Your task to perform on an android device: clear history in the chrome app Image 0: 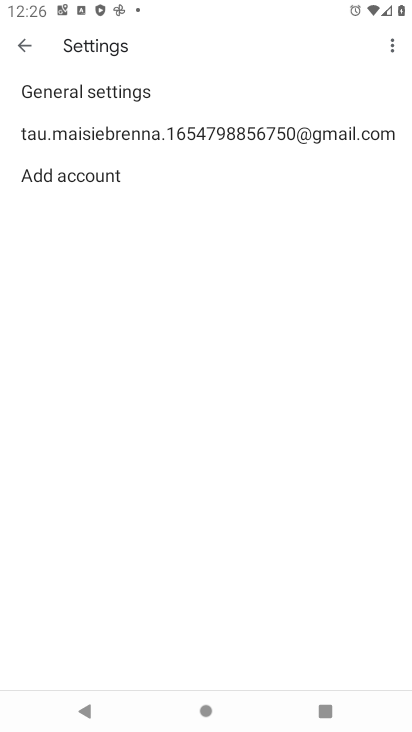
Step 0: click (31, 52)
Your task to perform on an android device: clear history in the chrome app Image 1: 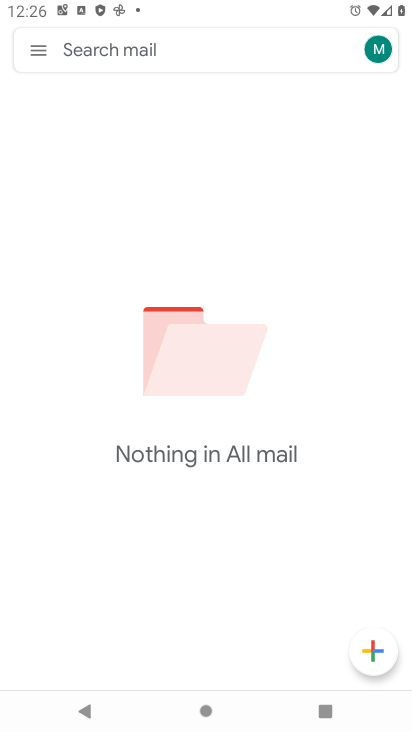
Step 1: press home button
Your task to perform on an android device: clear history in the chrome app Image 2: 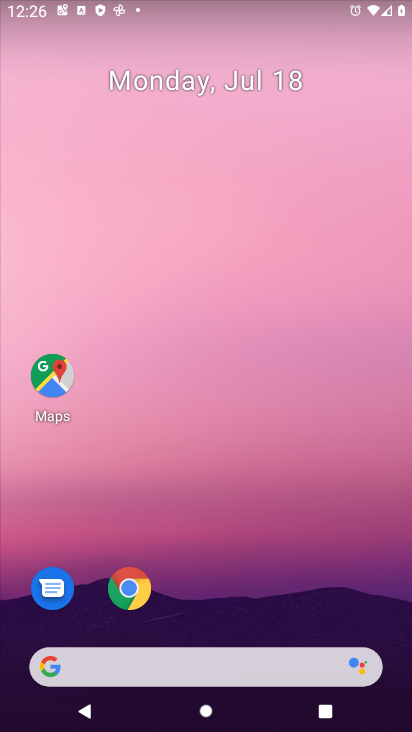
Step 2: click (130, 593)
Your task to perform on an android device: clear history in the chrome app Image 3: 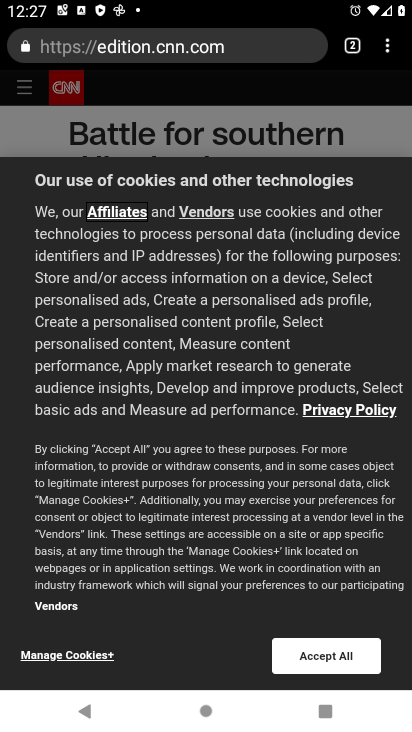
Step 3: click (386, 49)
Your task to perform on an android device: clear history in the chrome app Image 4: 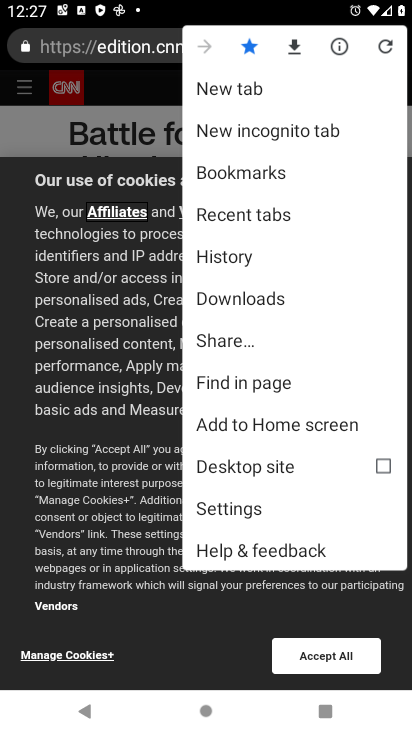
Step 4: click (226, 267)
Your task to perform on an android device: clear history in the chrome app Image 5: 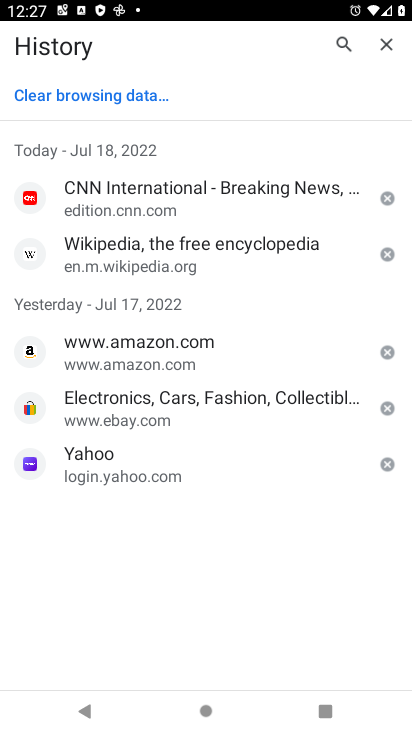
Step 5: click (114, 102)
Your task to perform on an android device: clear history in the chrome app Image 6: 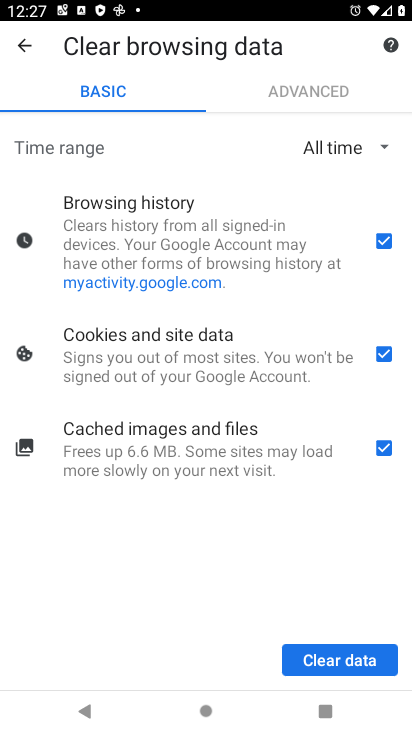
Step 6: click (385, 340)
Your task to perform on an android device: clear history in the chrome app Image 7: 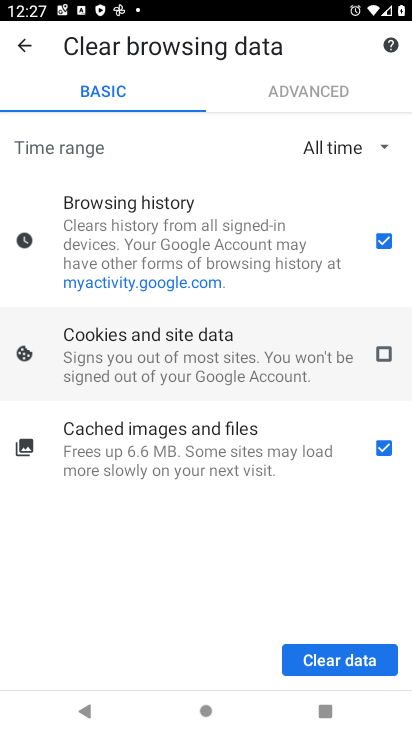
Step 7: click (380, 449)
Your task to perform on an android device: clear history in the chrome app Image 8: 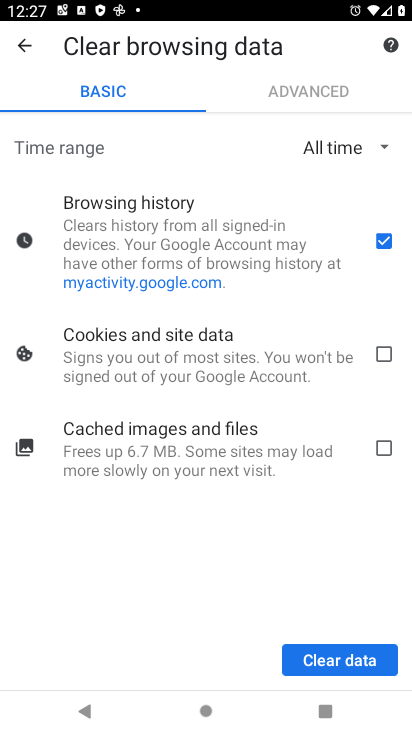
Step 8: click (345, 658)
Your task to perform on an android device: clear history in the chrome app Image 9: 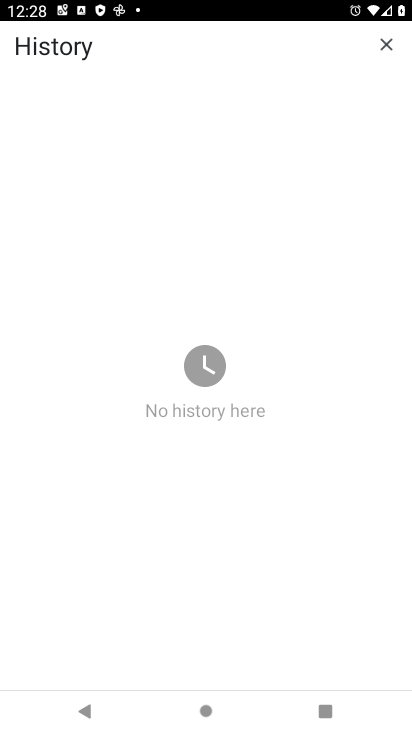
Step 9: task complete